Your task to perform on an android device: add a label to a message in the gmail app Image 0: 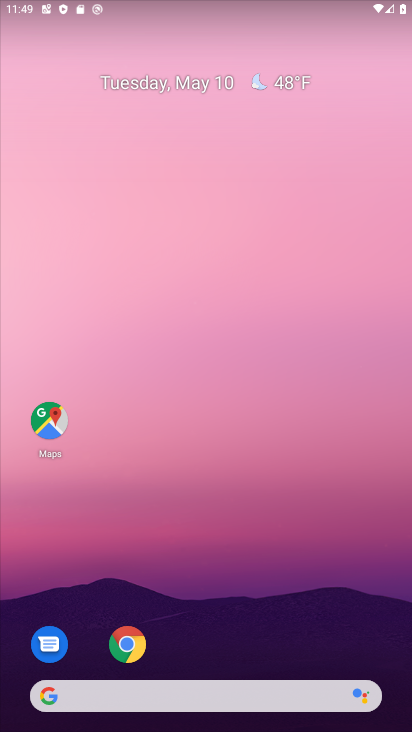
Step 0: drag from (202, 660) to (256, 153)
Your task to perform on an android device: add a label to a message in the gmail app Image 1: 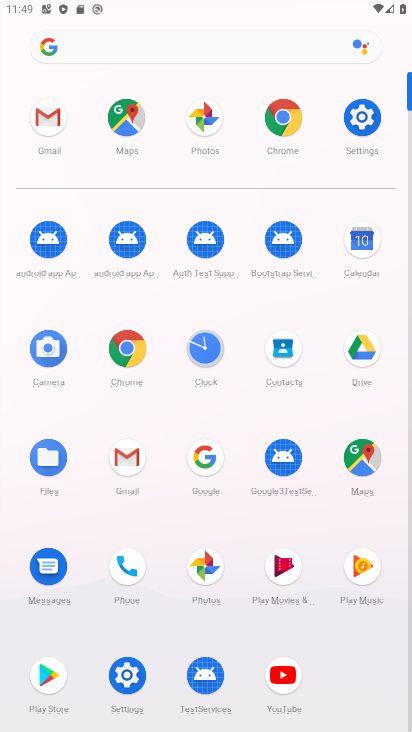
Step 1: click (159, 454)
Your task to perform on an android device: add a label to a message in the gmail app Image 2: 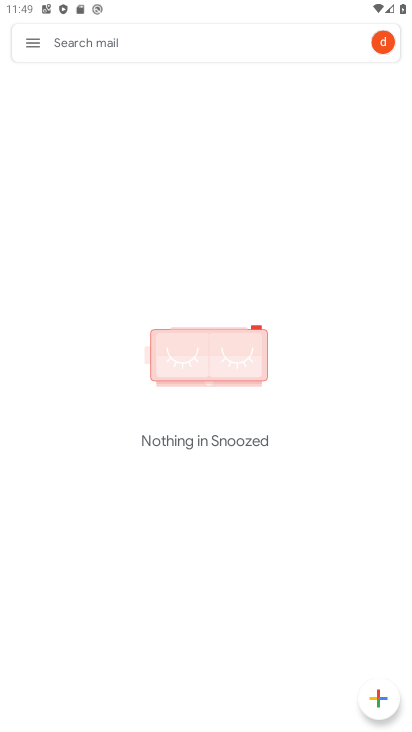
Step 2: click (28, 45)
Your task to perform on an android device: add a label to a message in the gmail app Image 3: 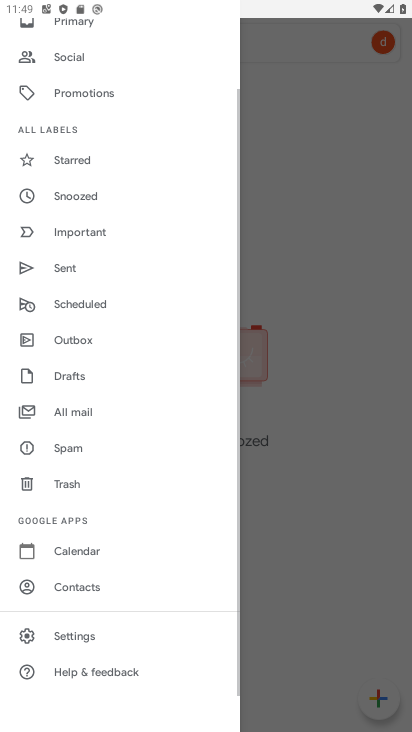
Step 3: click (83, 416)
Your task to perform on an android device: add a label to a message in the gmail app Image 4: 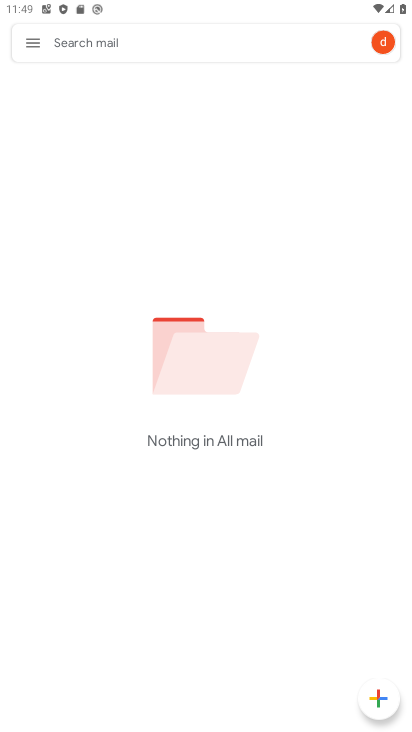
Step 4: task complete